Your task to perform on an android device: Open accessibility settings Image 0: 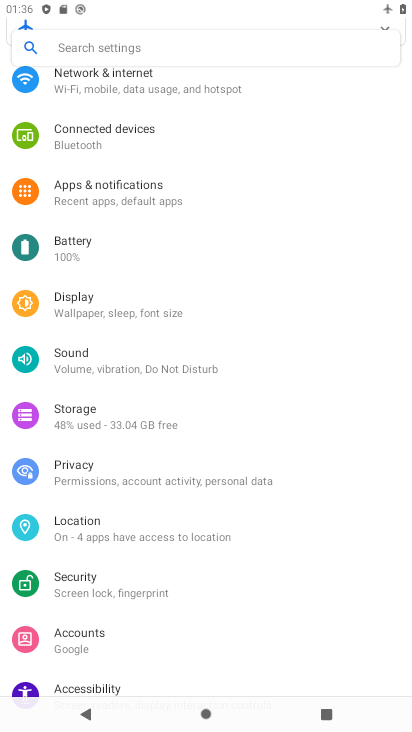
Step 0: drag from (259, 591) to (282, 214)
Your task to perform on an android device: Open accessibility settings Image 1: 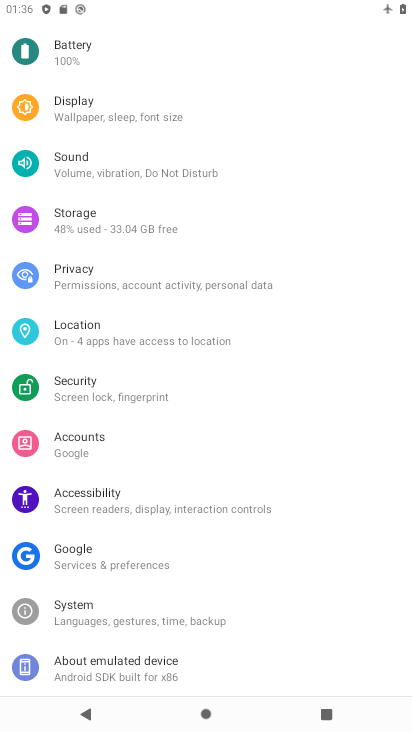
Step 1: click (115, 513)
Your task to perform on an android device: Open accessibility settings Image 2: 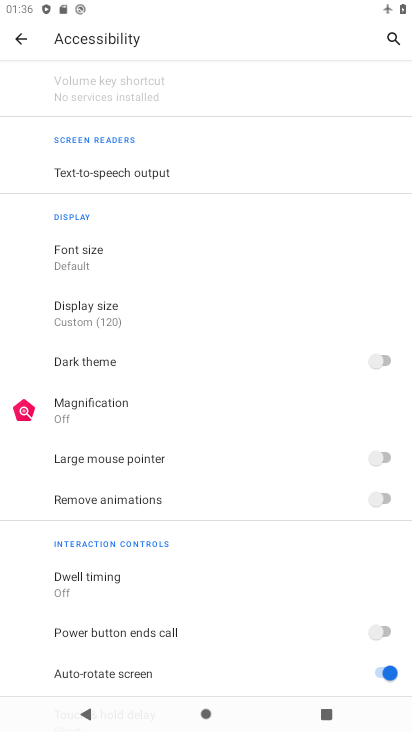
Step 2: task complete